Your task to perform on an android device: Search for Italian restaurants on Maps Image 0: 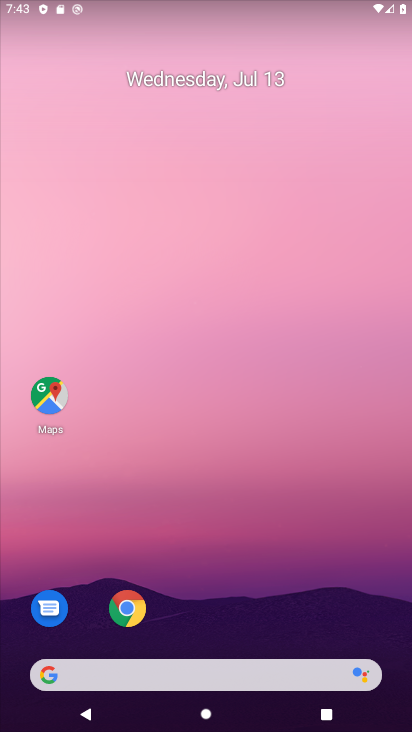
Step 0: drag from (174, 644) to (169, 138)
Your task to perform on an android device: Search for Italian restaurants on Maps Image 1: 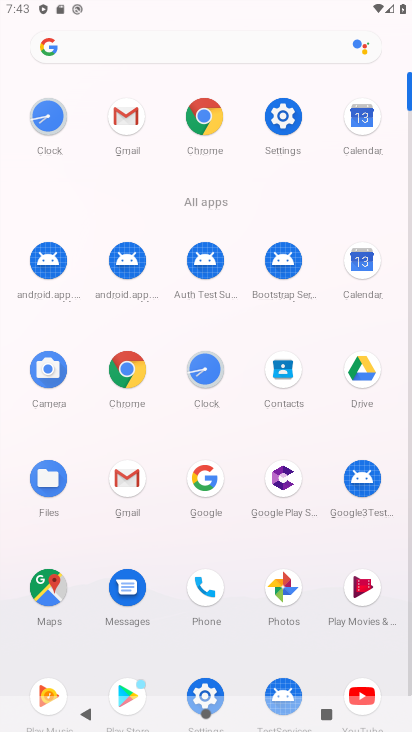
Step 1: click (45, 594)
Your task to perform on an android device: Search for Italian restaurants on Maps Image 2: 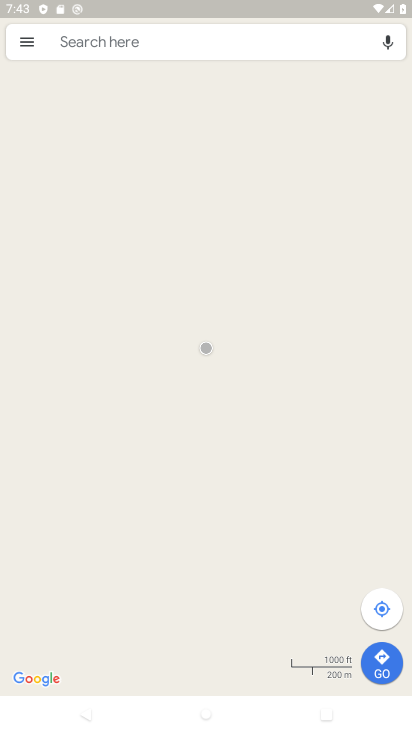
Step 2: click (170, 52)
Your task to perform on an android device: Search for Italian restaurants on Maps Image 3: 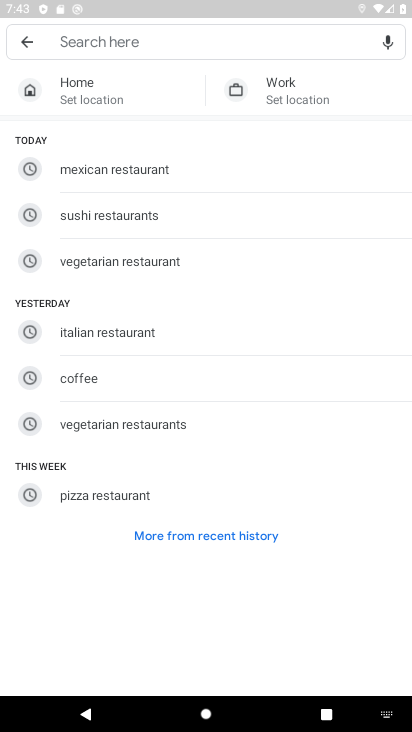
Step 3: click (107, 337)
Your task to perform on an android device: Search for Italian restaurants on Maps Image 4: 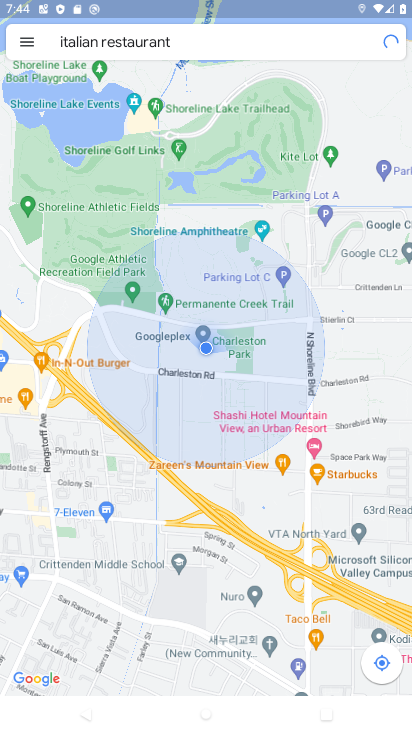
Step 4: task complete